Your task to perform on an android device: Set an alarm for 3pm Image 0: 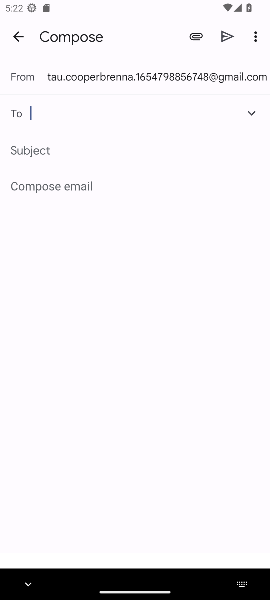
Step 0: press home button
Your task to perform on an android device: Set an alarm for 3pm Image 1: 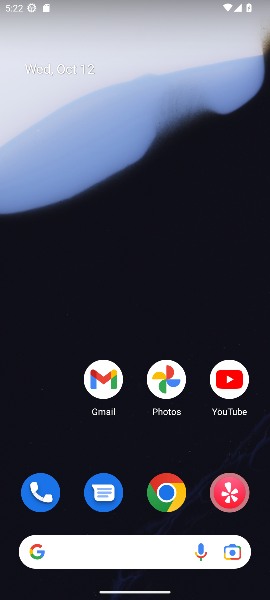
Step 1: drag from (134, 444) to (112, 6)
Your task to perform on an android device: Set an alarm for 3pm Image 2: 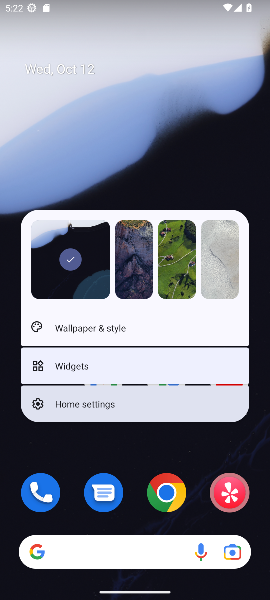
Step 2: press home button
Your task to perform on an android device: Set an alarm for 3pm Image 3: 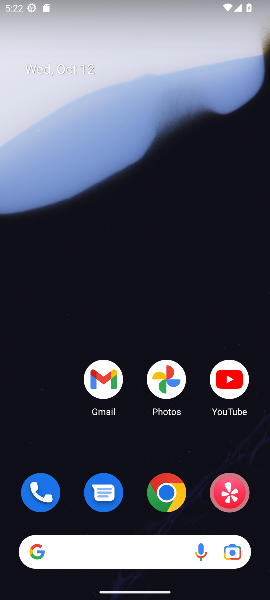
Step 3: drag from (153, 429) to (131, 8)
Your task to perform on an android device: Set an alarm for 3pm Image 4: 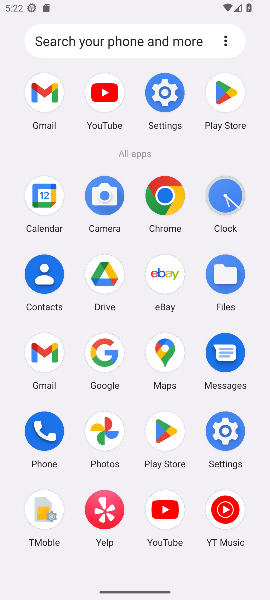
Step 4: click (227, 193)
Your task to perform on an android device: Set an alarm for 3pm Image 5: 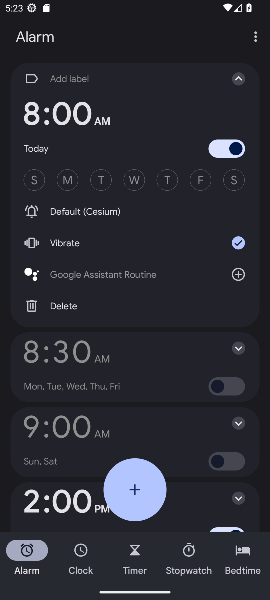
Step 5: click (137, 498)
Your task to perform on an android device: Set an alarm for 3pm Image 6: 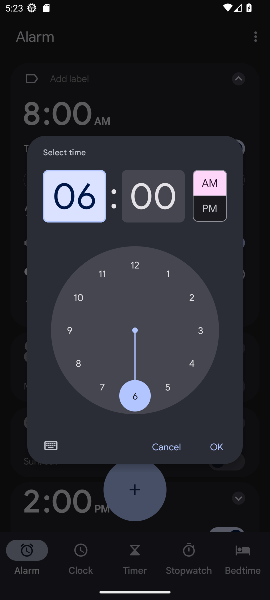
Step 6: click (200, 338)
Your task to perform on an android device: Set an alarm for 3pm Image 7: 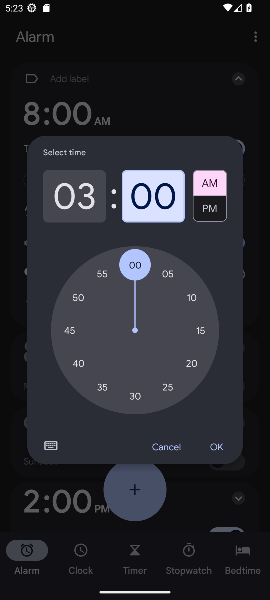
Step 7: click (218, 209)
Your task to perform on an android device: Set an alarm for 3pm Image 8: 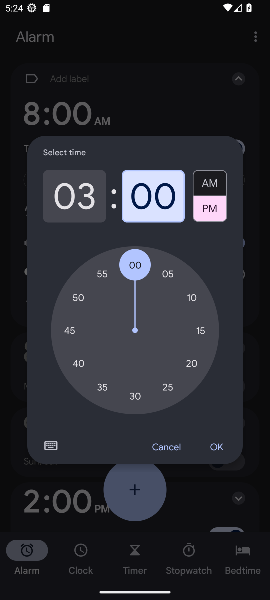
Step 8: click (215, 448)
Your task to perform on an android device: Set an alarm for 3pm Image 9: 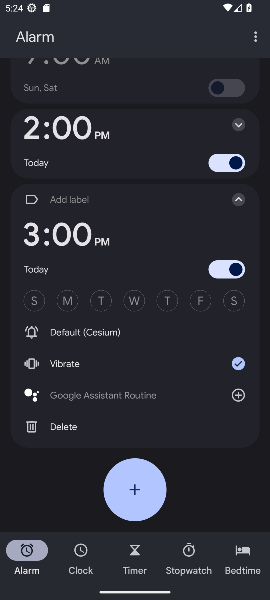
Step 9: task complete